Your task to perform on an android device: delete location history Image 0: 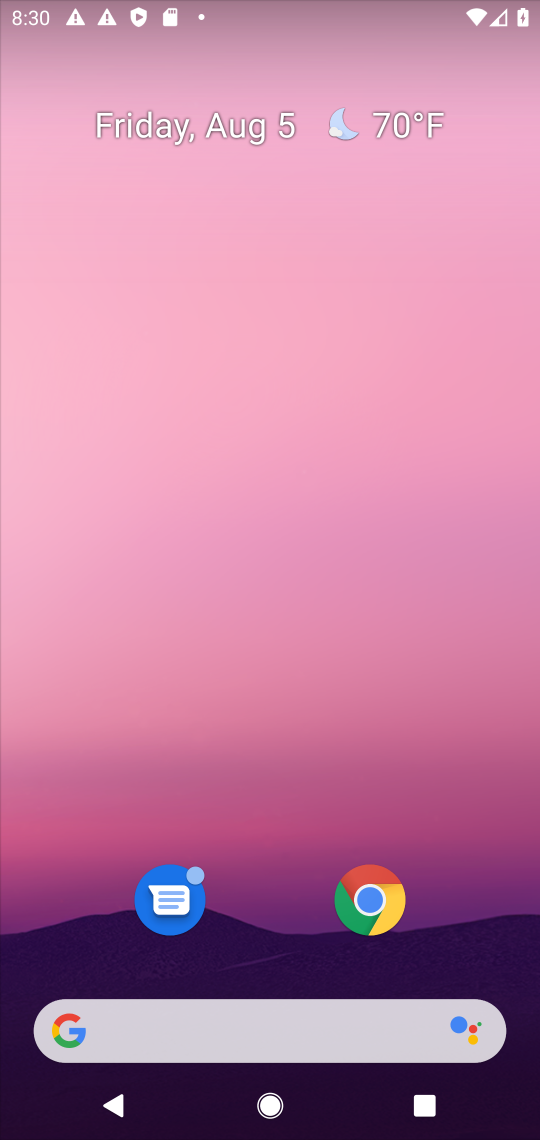
Step 0: drag from (273, 949) to (262, 129)
Your task to perform on an android device: delete location history Image 1: 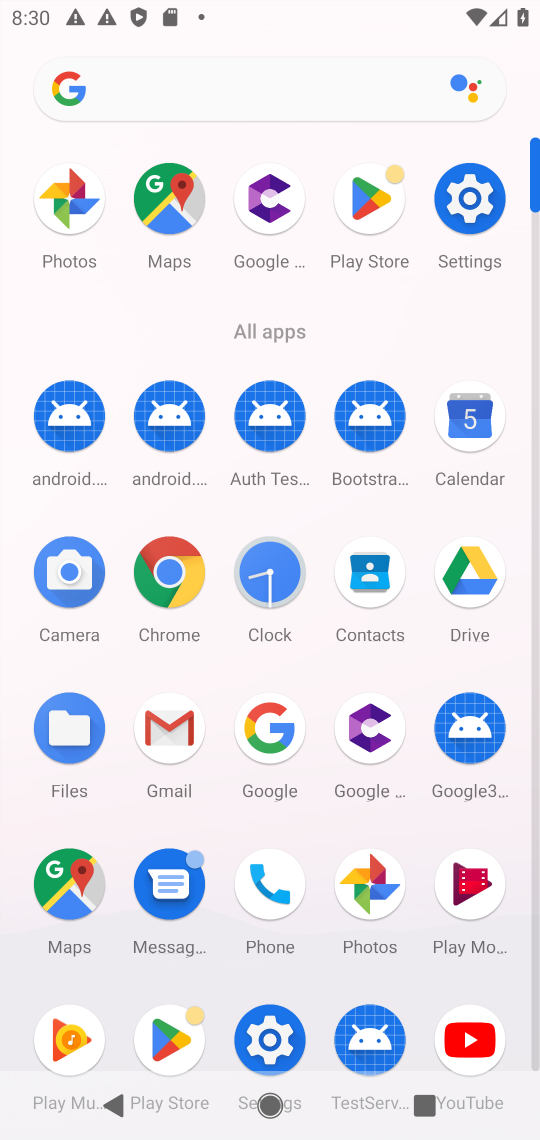
Step 1: click (271, 1034)
Your task to perform on an android device: delete location history Image 2: 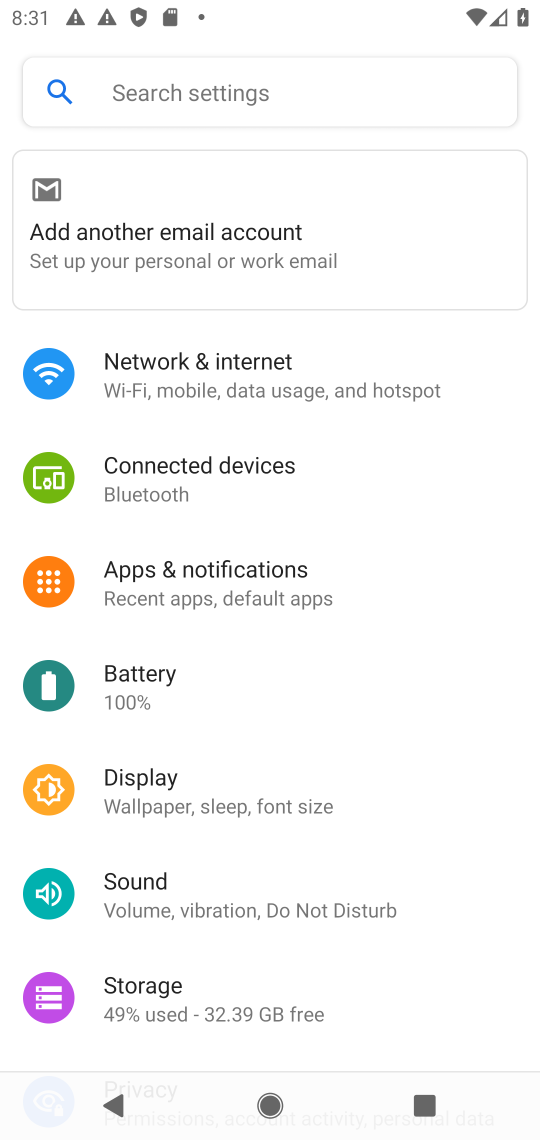
Step 2: drag from (276, 906) to (276, 388)
Your task to perform on an android device: delete location history Image 3: 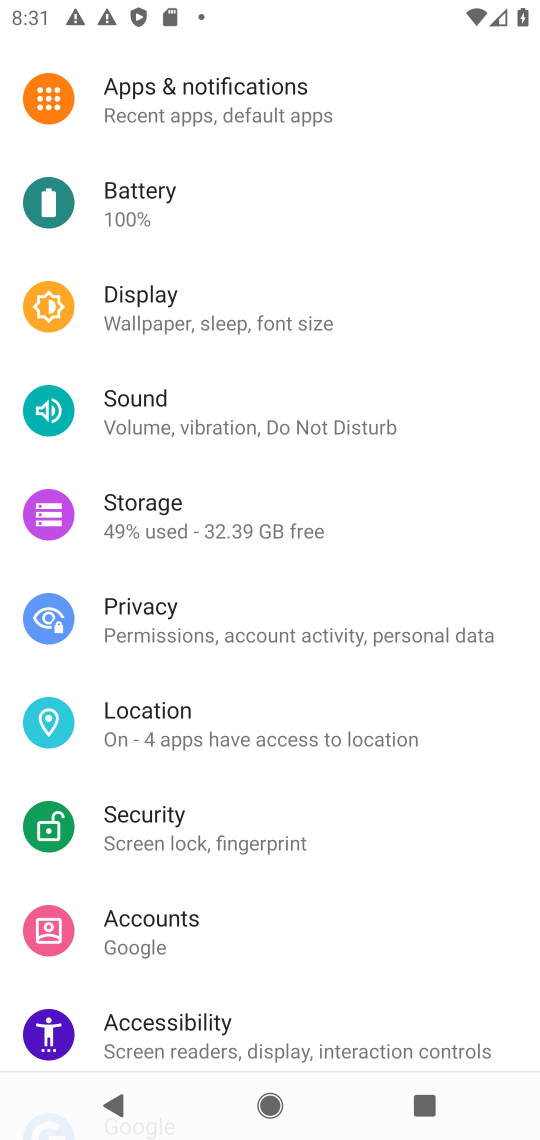
Step 3: drag from (279, 956) to (227, 441)
Your task to perform on an android device: delete location history Image 4: 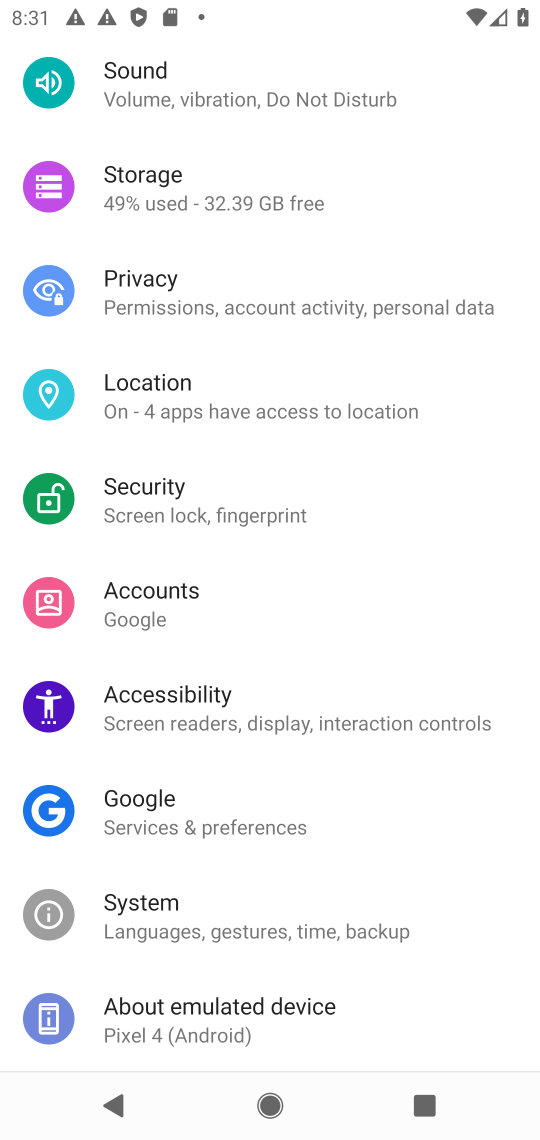
Step 4: press home button
Your task to perform on an android device: delete location history Image 5: 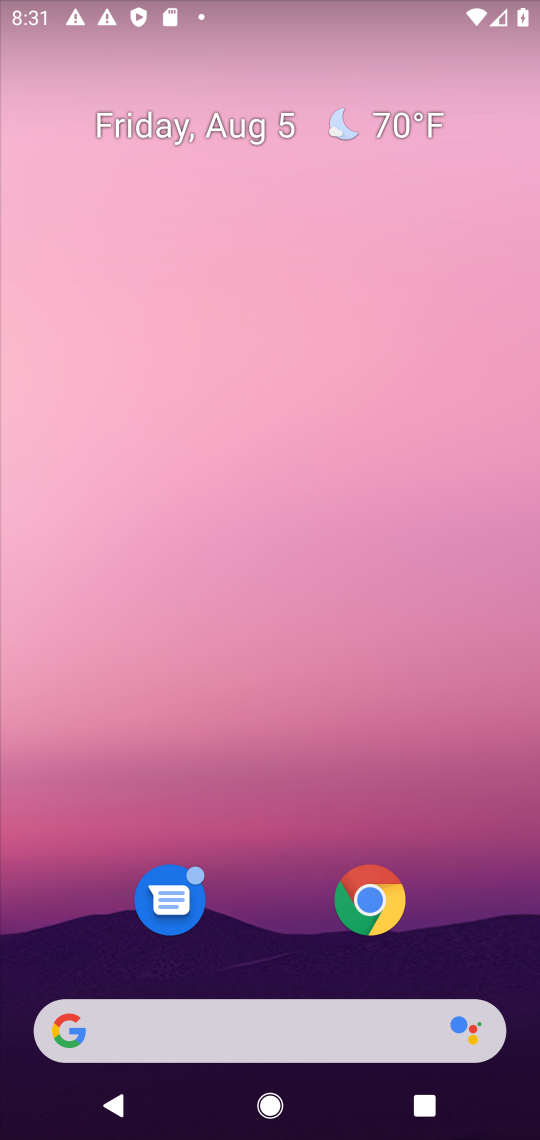
Step 5: drag from (252, 948) to (289, 170)
Your task to perform on an android device: delete location history Image 6: 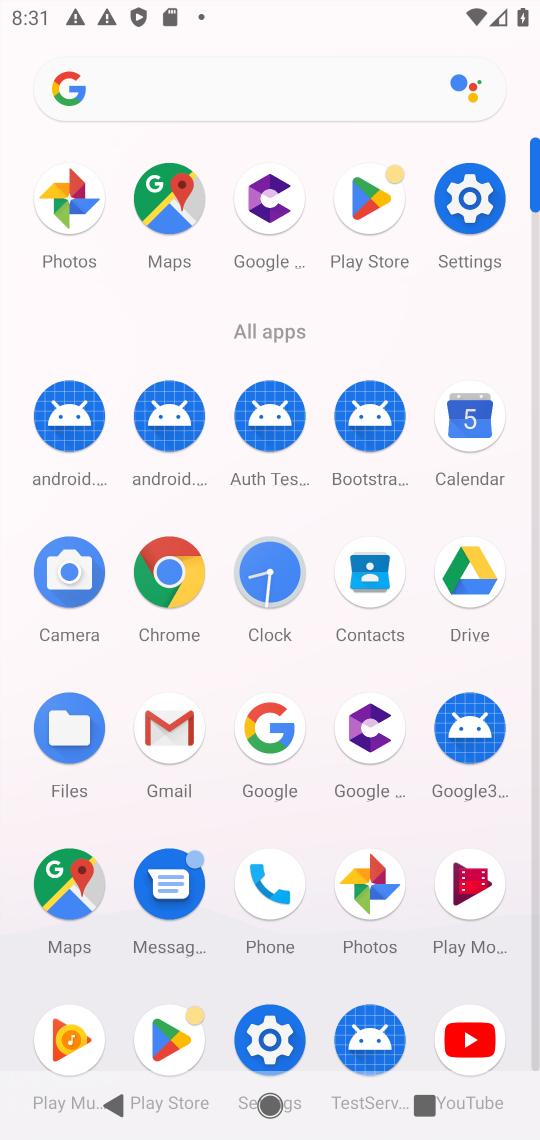
Step 6: click (79, 857)
Your task to perform on an android device: delete location history Image 7: 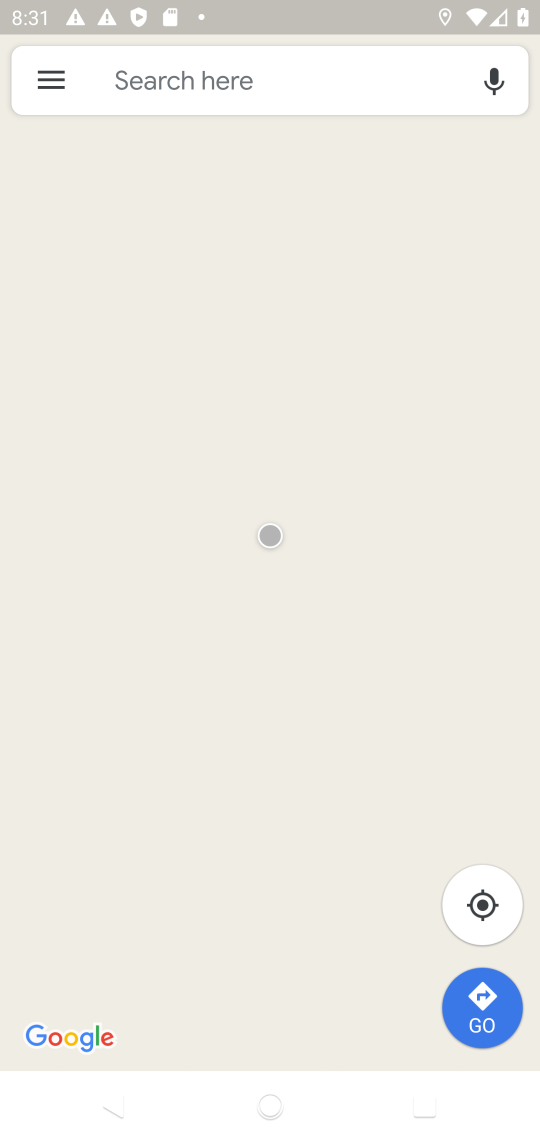
Step 7: click (53, 61)
Your task to perform on an android device: delete location history Image 8: 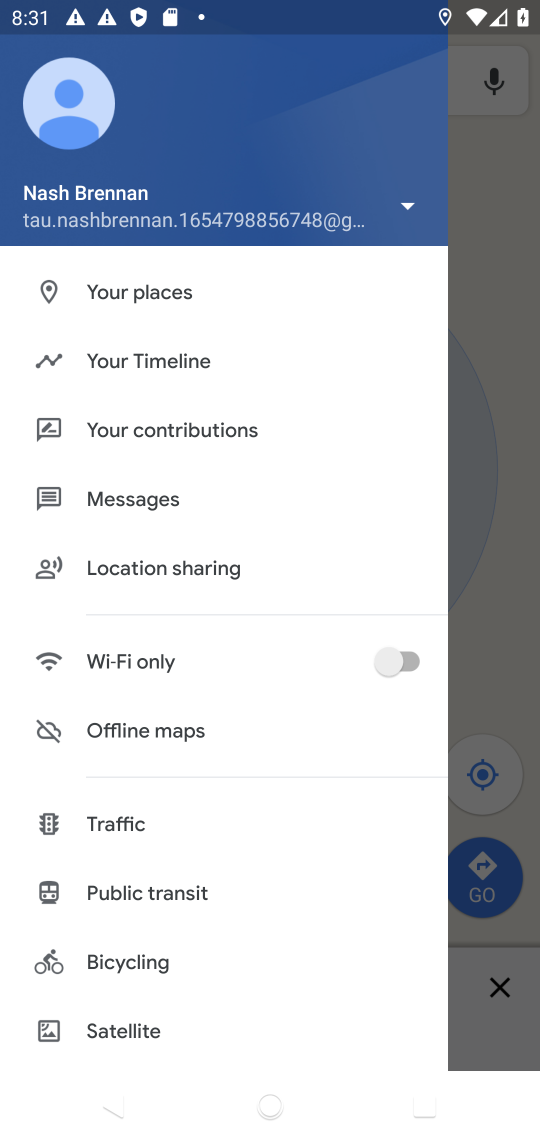
Step 8: click (134, 360)
Your task to perform on an android device: delete location history Image 9: 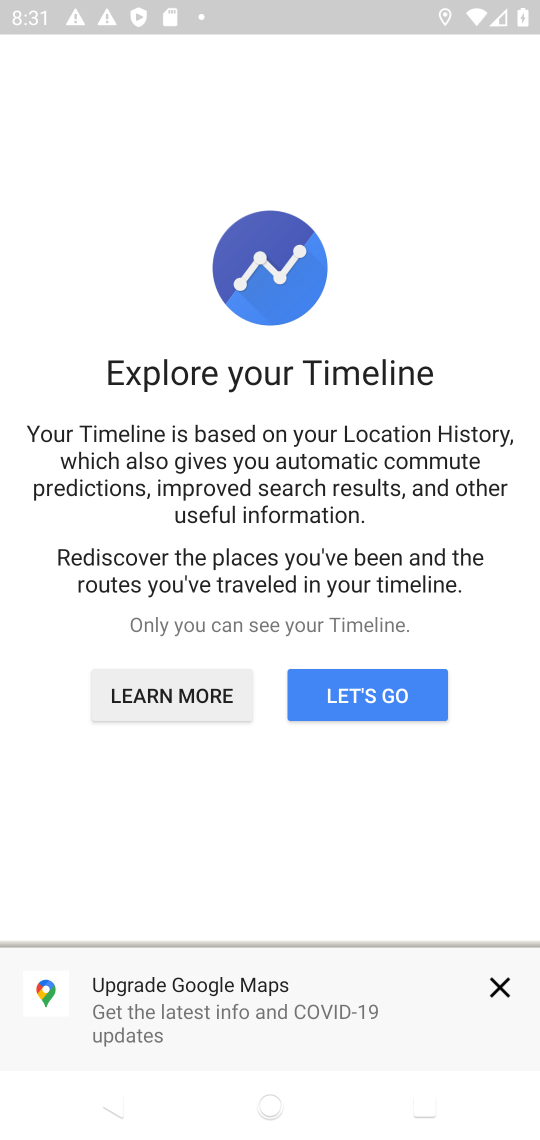
Step 9: click (375, 695)
Your task to perform on an android device: delete location history Image 10: 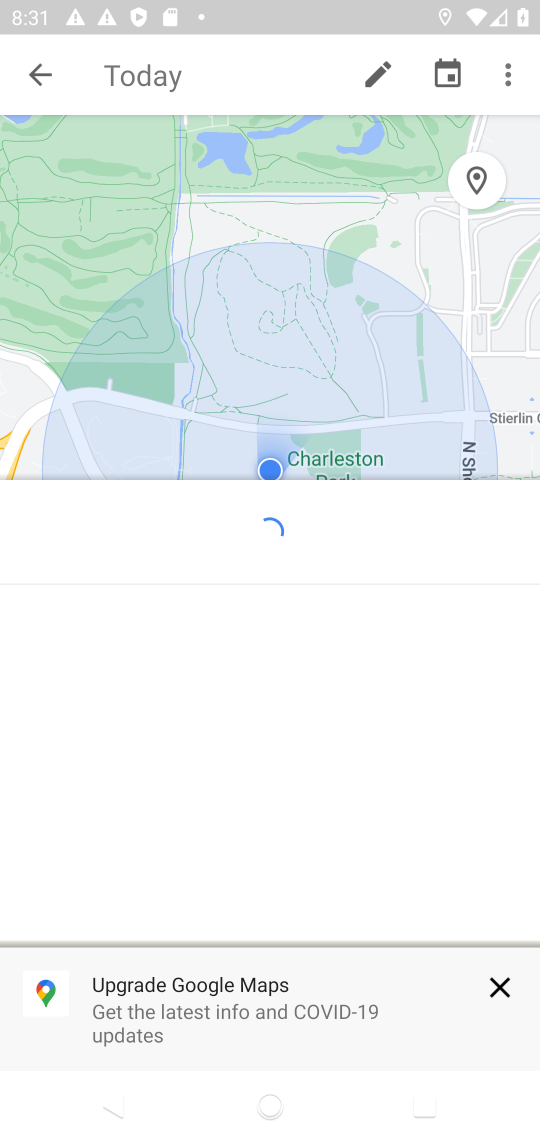
Step 10: click (496, 75)
Your task to perform on an android device: delete location history Image 11: 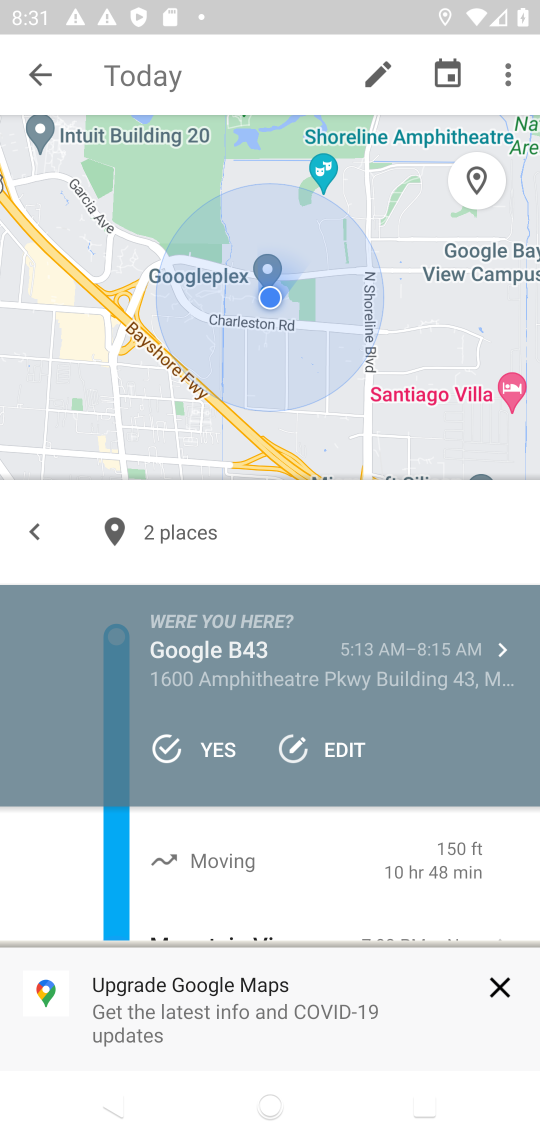
Step 11: click (509, 72)
Your task to perform on an android device: delete location history Image 12: 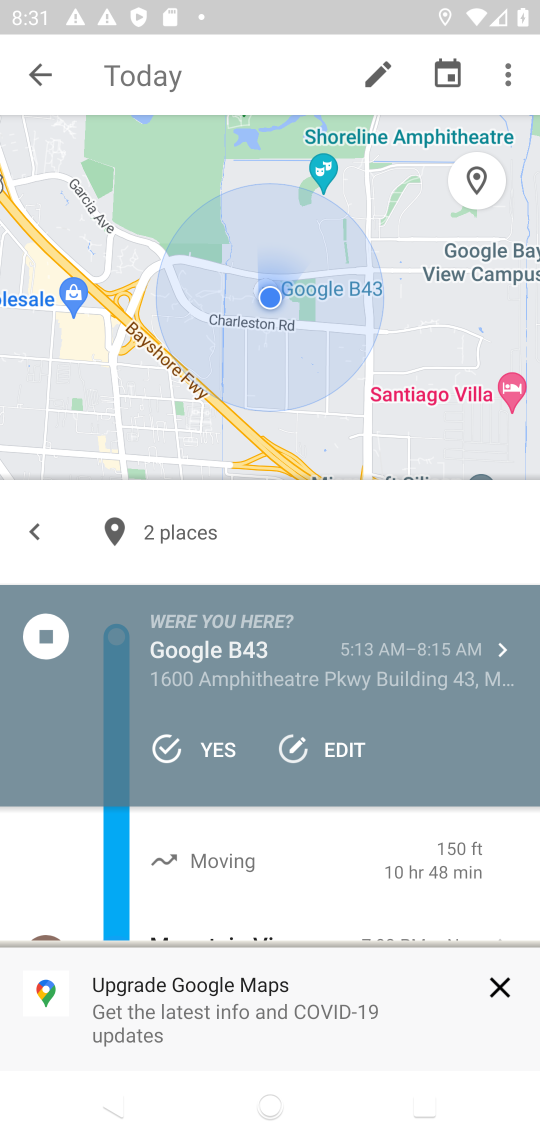
Step 12: click (513, 66)
Your task to perform on an android device: delete location history Image 13: 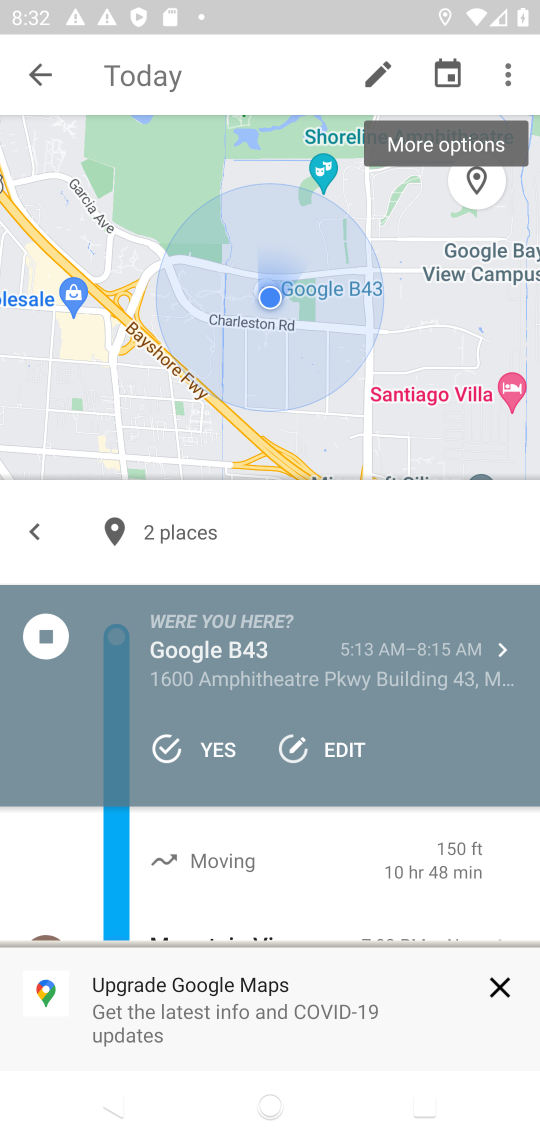
Step 13: click (498, 67)
Your task to perform on an android device: delete location history Image 14: 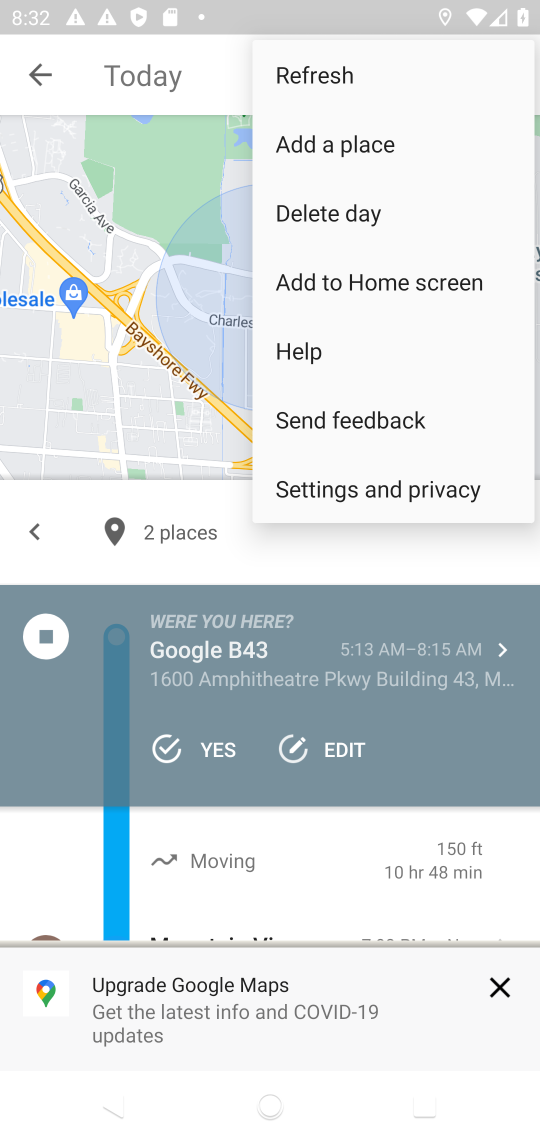
Step 14: click (361, 480)
Your task to perform on an android device: delete location history Image 15: 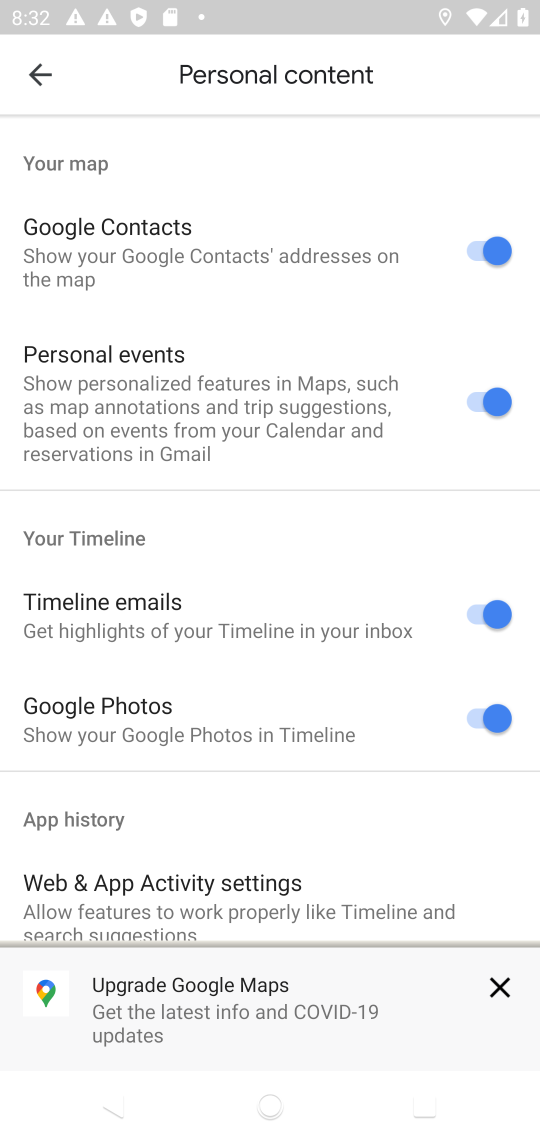
Step 15: drag from (295, 734) to (338, 284)
Your task to perform on an android device: delete location history Image 16: 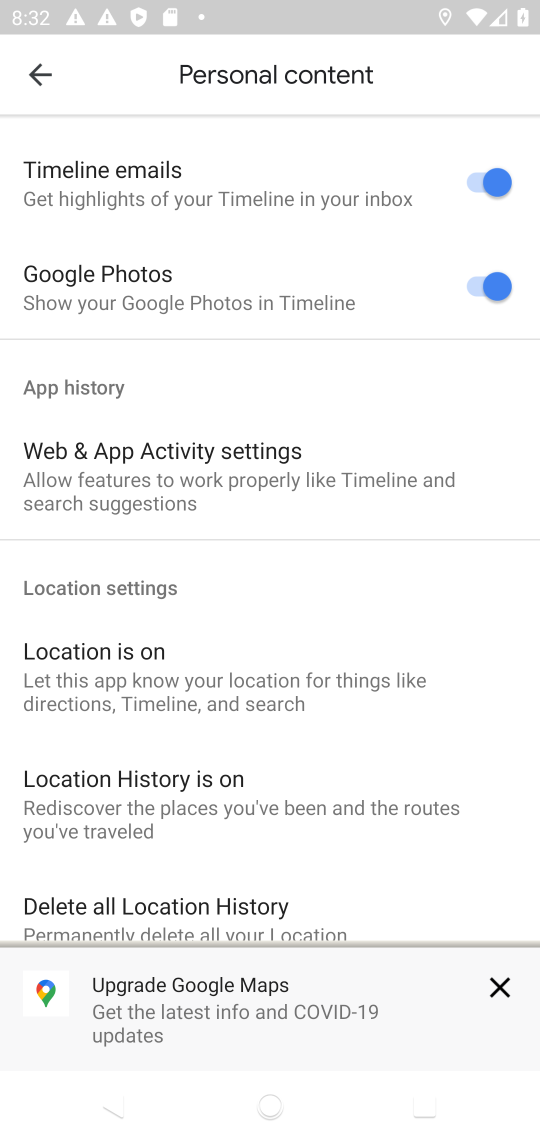
Step 16: click (159, 804)
Your task to perform on an android device: delete location history Image 17: 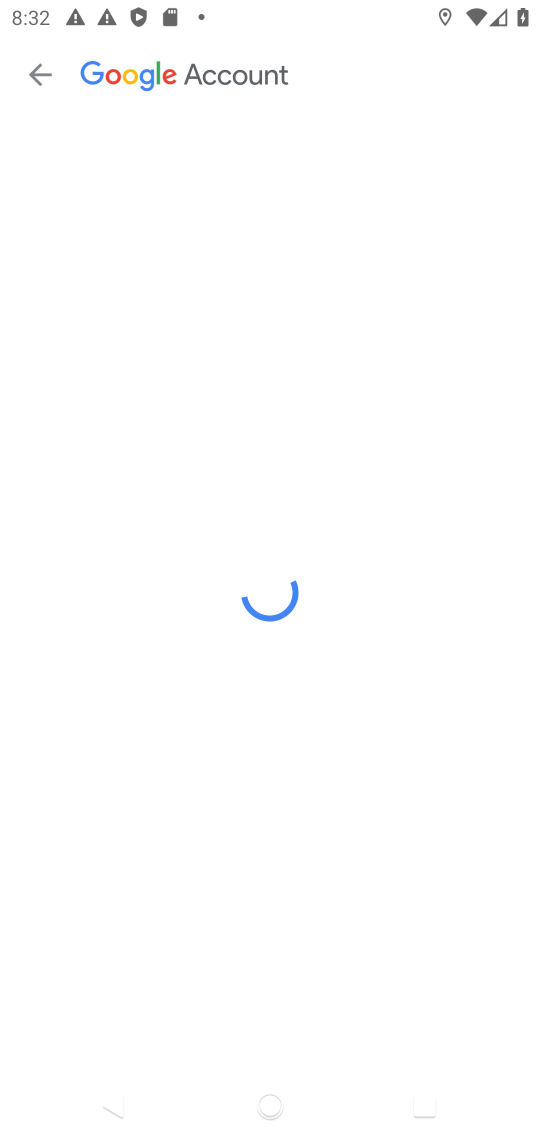
Step 17: press back button
Your task to perform on an android device: delete location history Image 18: 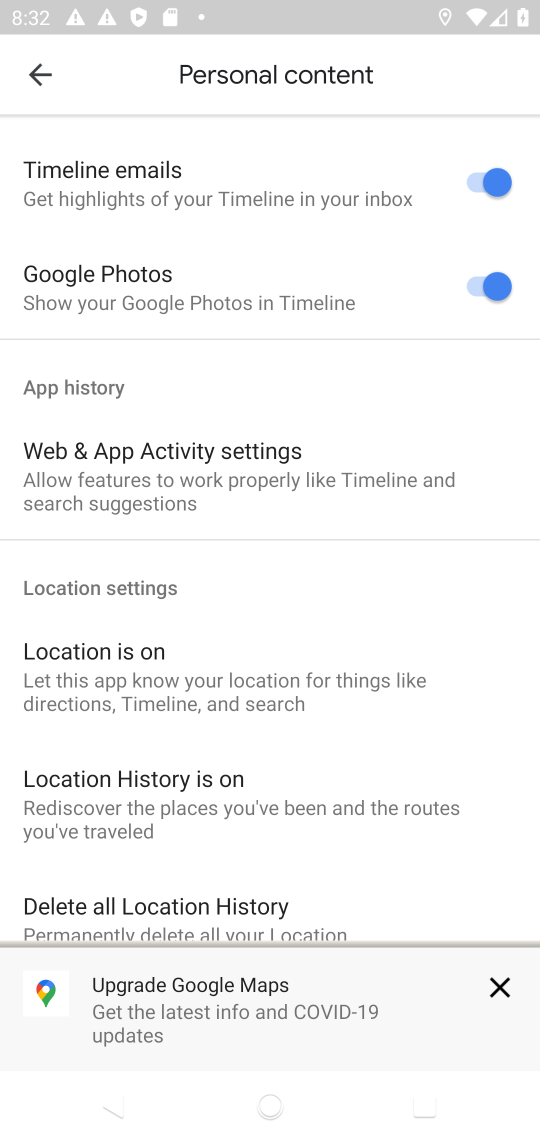
Step 18: drag from (262, 810) to (313, 472)
Your task to perform on an android device: delete location history Image 19: 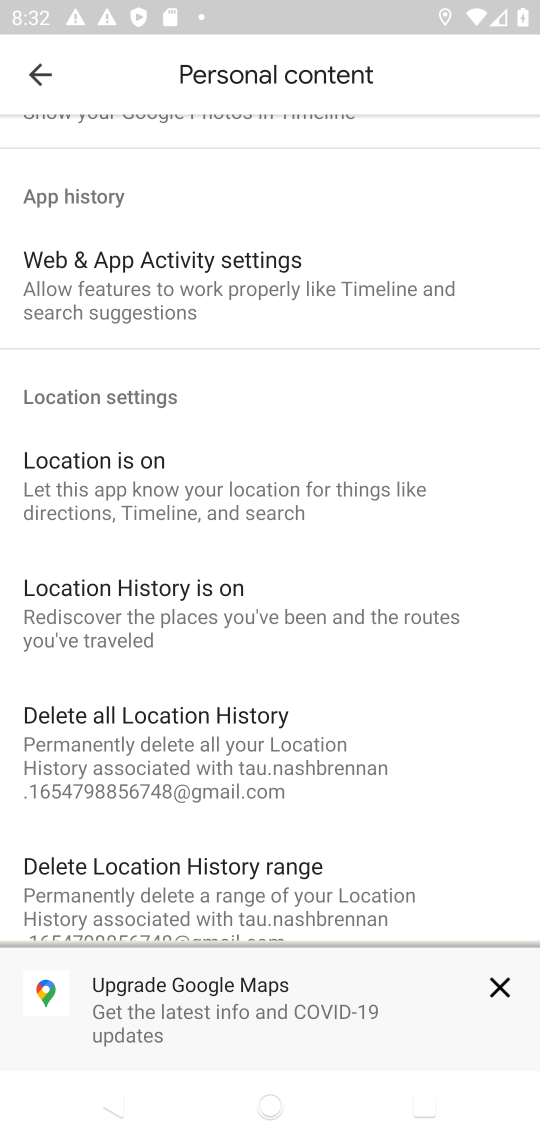
Step 19: click (181, 725)
Your task to perform on an android device: delete location history Image 20: 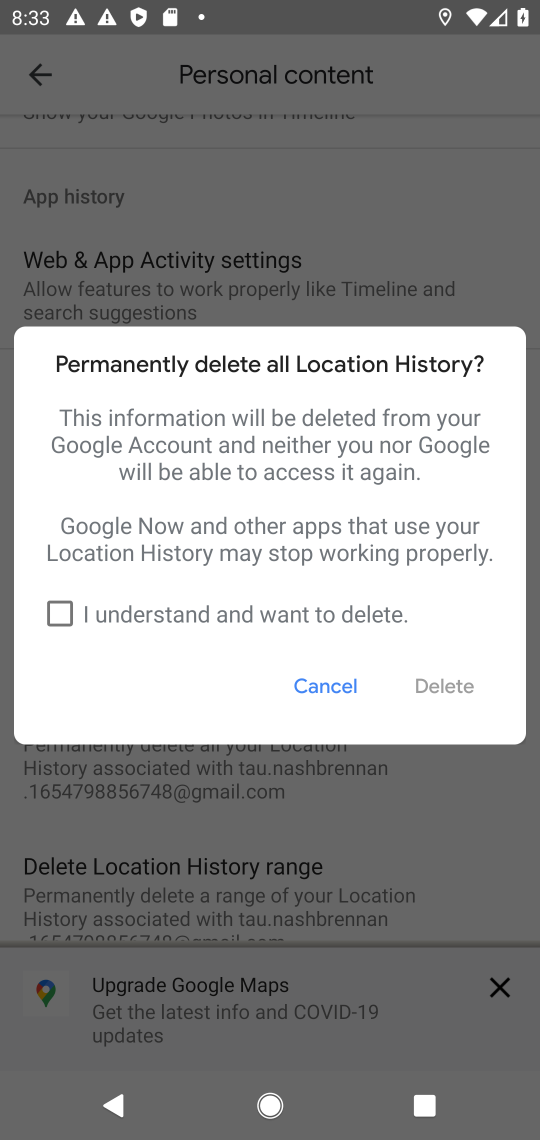
Step 20: click (71, 600)
Your task to perform on an android device: delete location history Image 21: 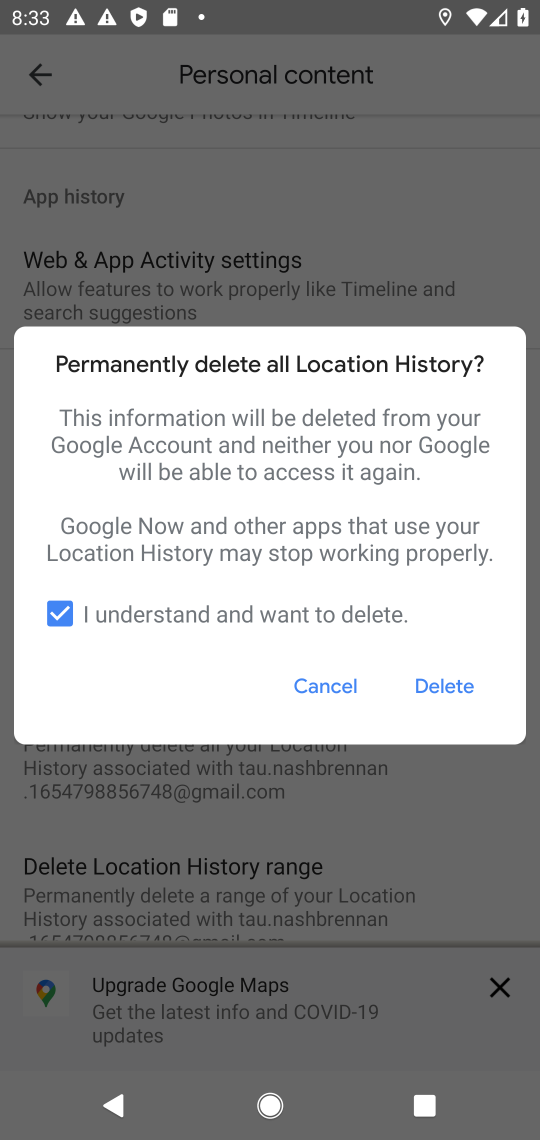
Step 21: click (468, 678)
Your task to perform on an android device: delete location history Image 22: 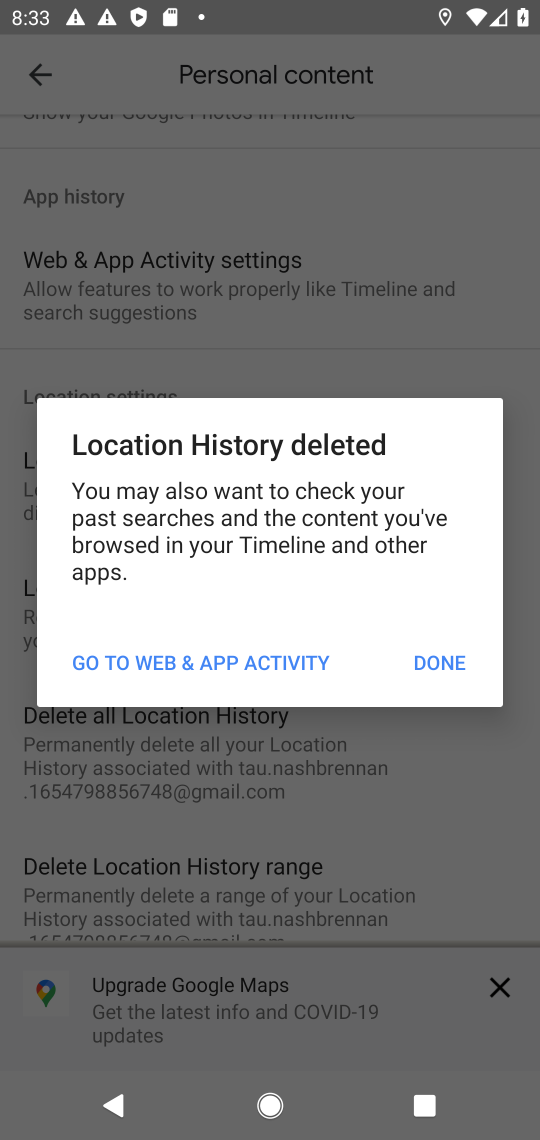
Step 22: click (448, 653)
Your task to perform on an android device: delete location history Image 23: 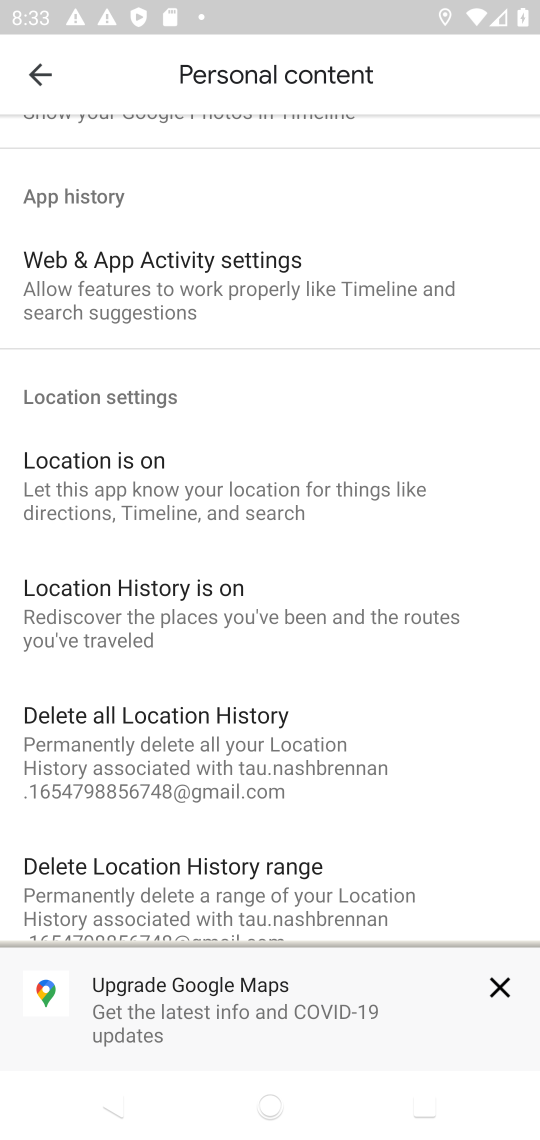
Step 23: task complete